Your task to perform on an android device: How much does a 3 bedroom apartment rent for in Atlanta? Image 0: 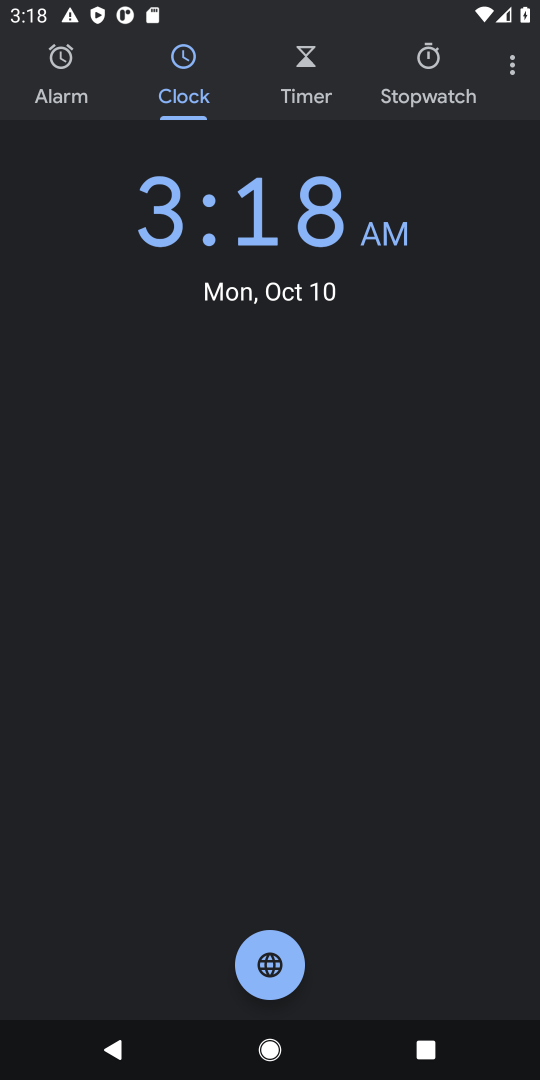
Step 0: press home button
Your task to perform on an android device: How much does a 3 bedroom apartment rent for in Atlanta? Image 1: 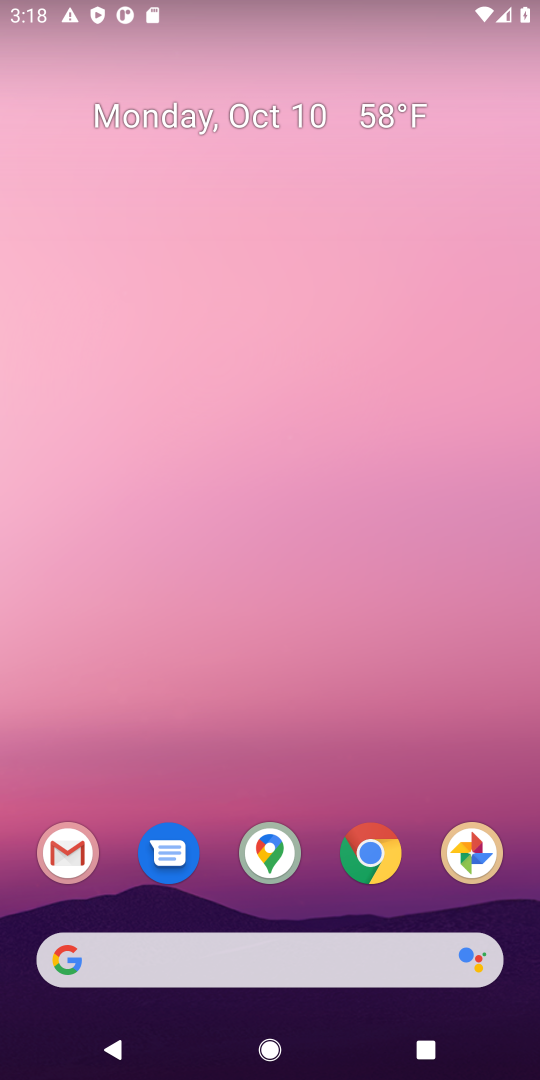
Step 1: click (221, 964)
Your task to perform on an android device: How much does a 3 bedroom apartment rent for in Atlanta? Image 2: 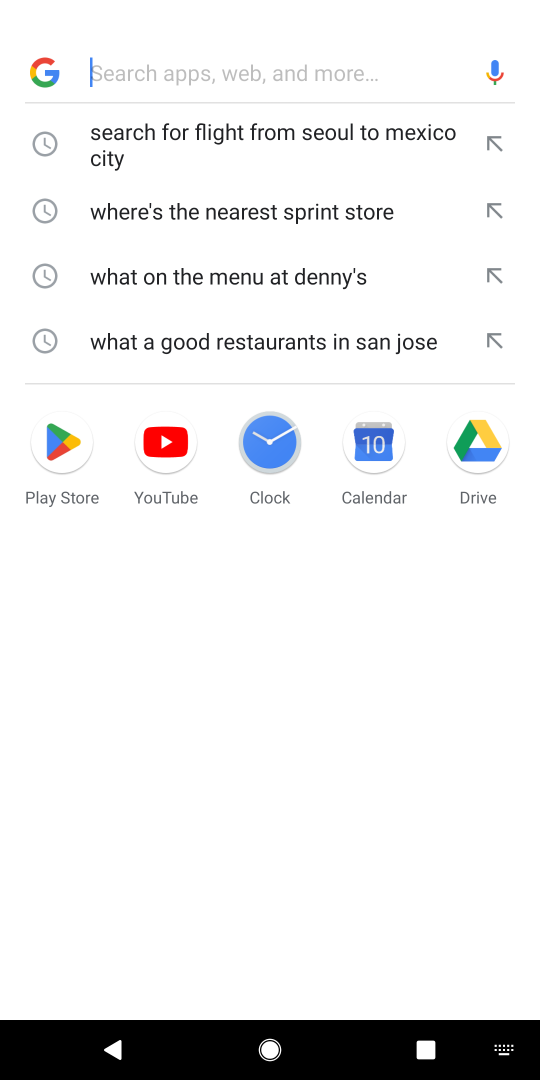
Step 2: click (113, 51)
Your task to perform on an android device: How much does a 3 bedroom apartment rent for in Atlanta? Image 3: 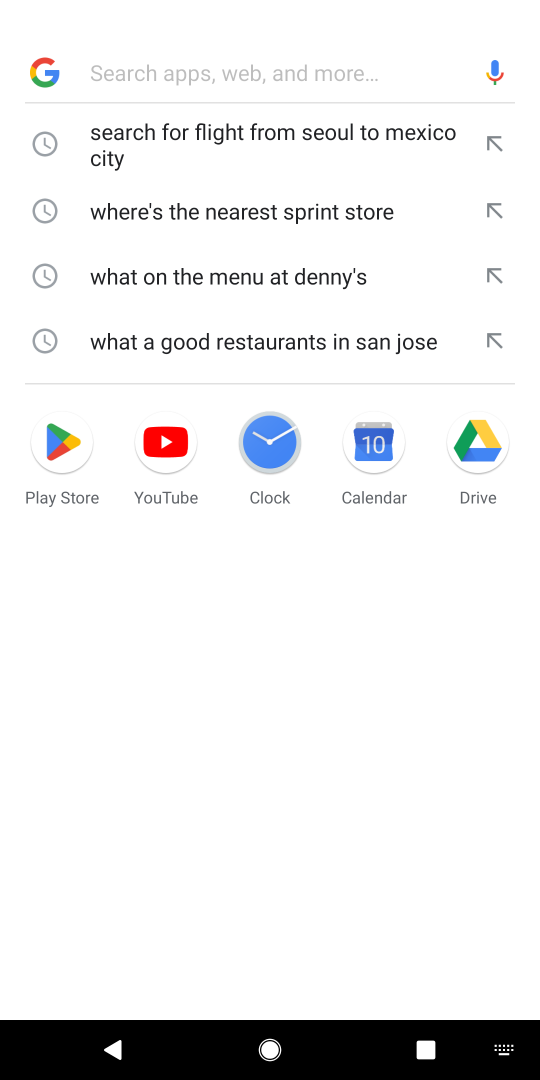
Step 3: type "How much does a 3 bedroom apartment rent for in Atlanta?"
Your task to perform on an android device: How much does a 3 bedroom apartment rent for in Atlanta? Image 4: 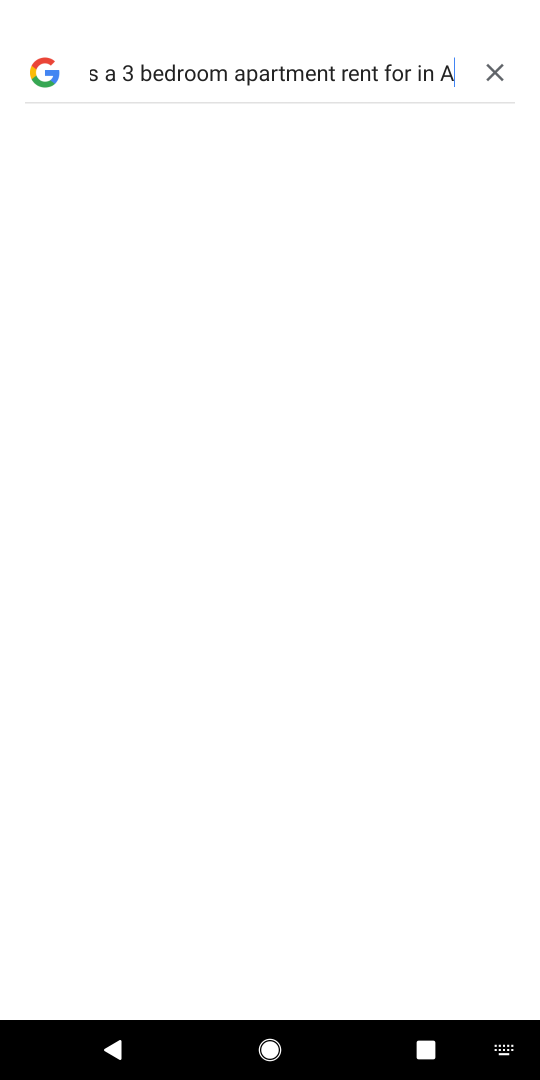
Step 4: task complete